Your task to perform on an android device: turn on javascript in the chrome app Image 0: 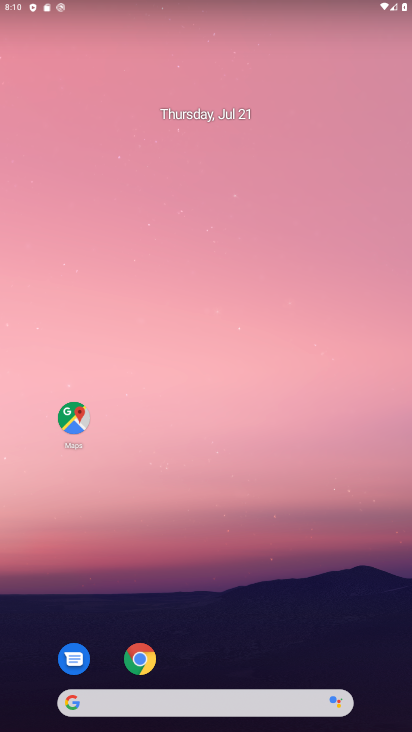
Step 0: press home button
Your task to perform on an android device: turn on javascript in the chrome app Image 1: 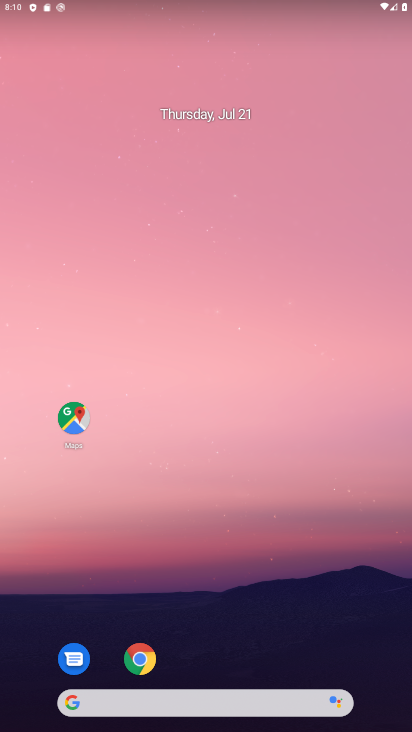
Step 1: click (139, 651)
Your task to perform on an android device: turn on javascript in the chrome app Image 2: 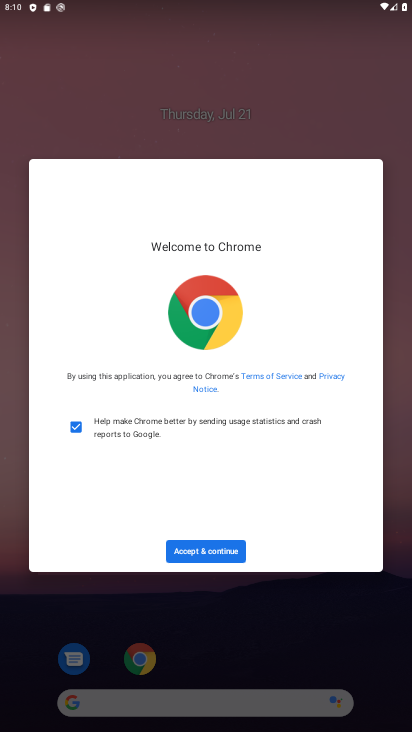
Step 2: click (203, 550)
Your task to perform on an android device: turn on javascript in the chrome app Image 3: 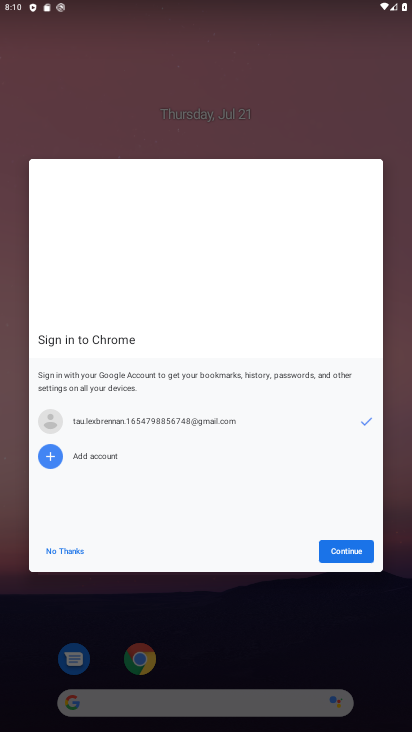
Step 3: click (343, 550)
Your task to perform on an android device: turn on javascript in the chrome app Image 4: 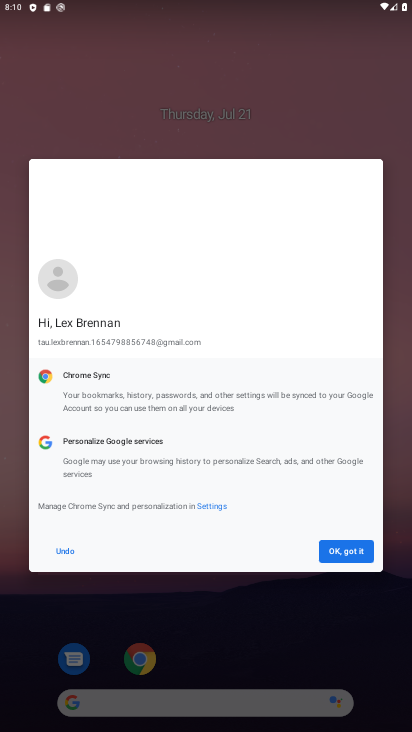
Step 4: click (344, 551)
Your task to perform on an android device: turn on javascript in the chrome app Image 5: 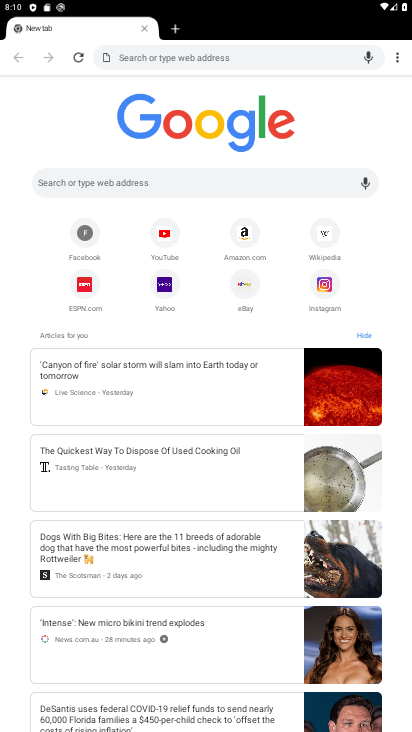
Step 5: click (397, 55)
Your task to perform on an android device: turn on javascript in the chrome app Image 6: 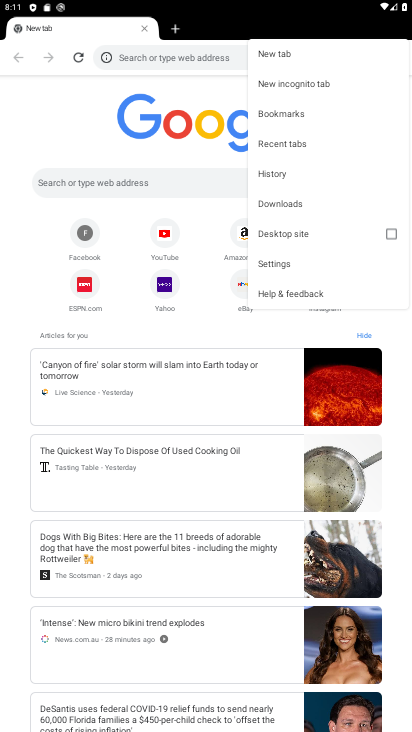
Step 6: click (295, 263)
Your task to perform on an android device: turn on javascript in the chrome app Image 7: 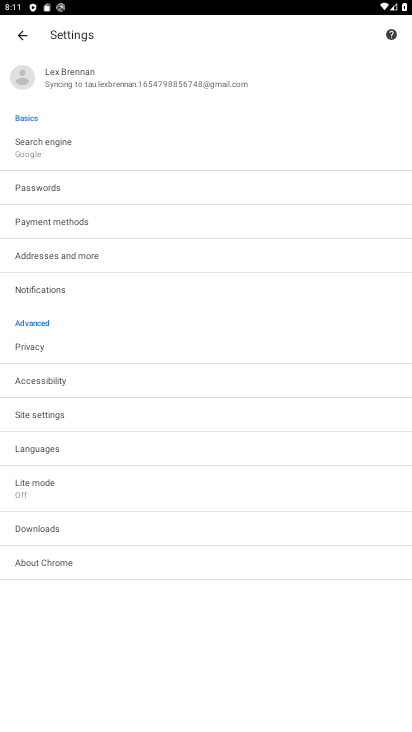
Step 7: click (74, 412)
Your task to perform on an android device: turn on javascript in the chrome app Image 8: 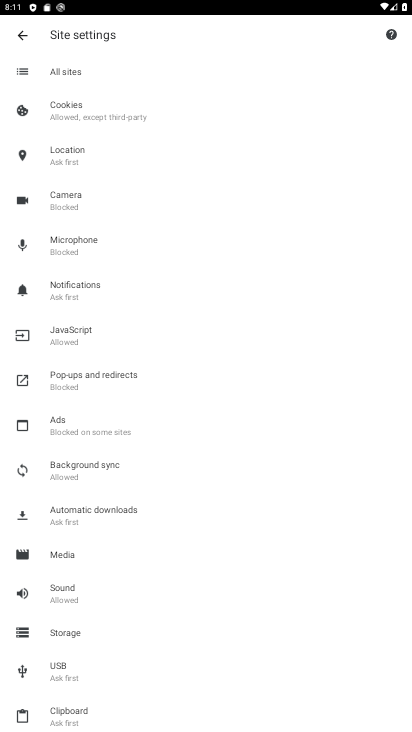
Step 8: click (92, 333)
Your task to perform on an android device: turn on javascript in the chrome app Image 9: 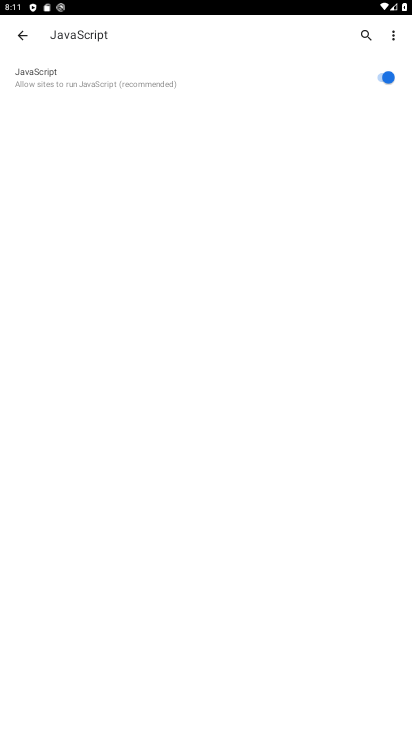
Step 9: task complete